Your task to perform on an android device: move an email to a new category in the gmail app Image 0: 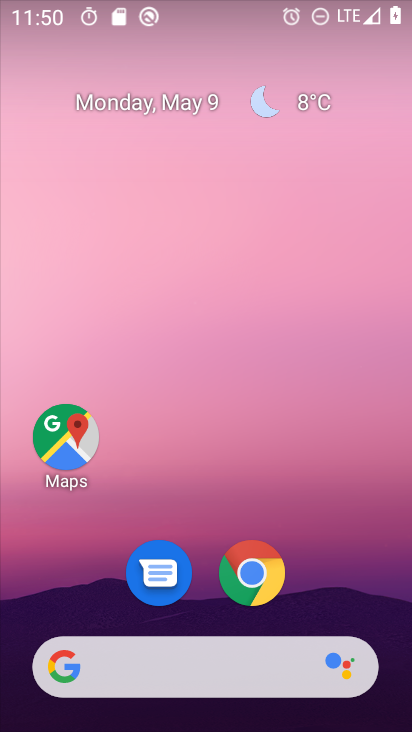
Step 0: drag from (348, 546) to (261, 149)
Your task to perform on an android device: move an email to a new category in the gmail app Image 1: 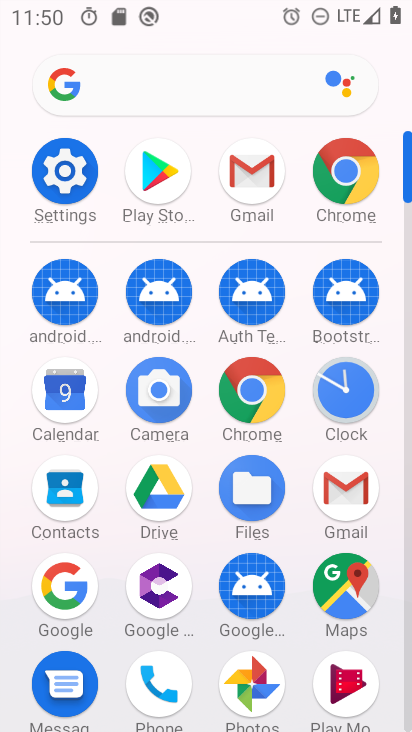
Step 1: click (343, 478)
Your task to perform on an android device: move an email to a new category in the gmail app Image 2: 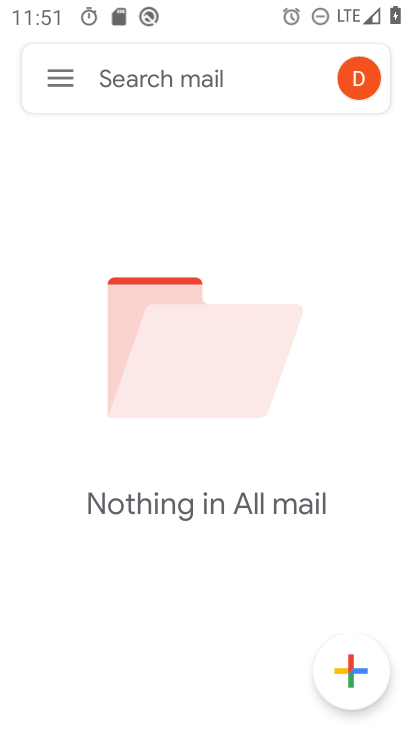
Step 2: task complete